Your task to perform on an android device: Go to location settings Image 0: 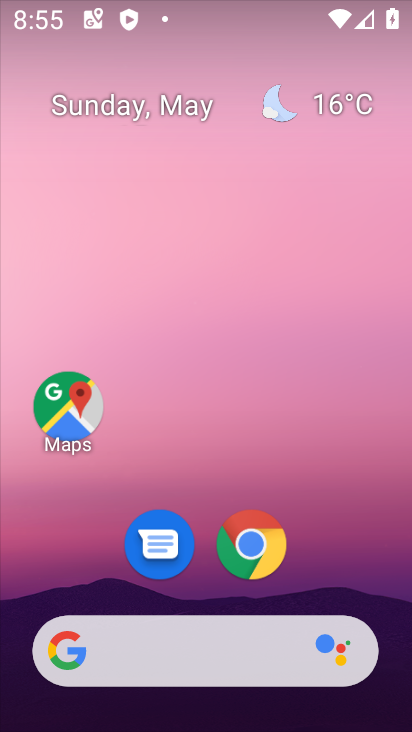
Step 0: drag from (297, 570) to (299, 70)
Your task to perform on an android device: Go to location settings Image 1: 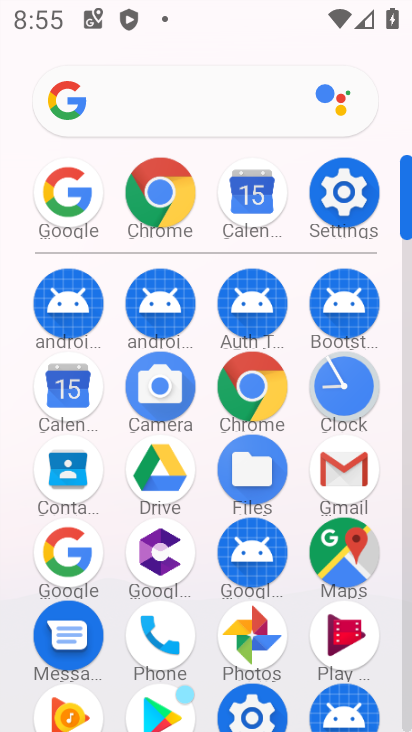
Step 1: click (339, 274)
Your task to perform on an android device: Go to location settings Image 2: 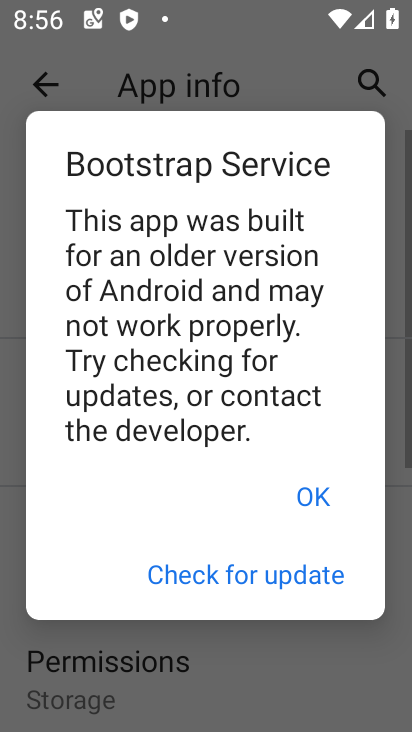
Step 2: click (303, 506)
Your task to perform on an android device: Go to location settings Image 3: 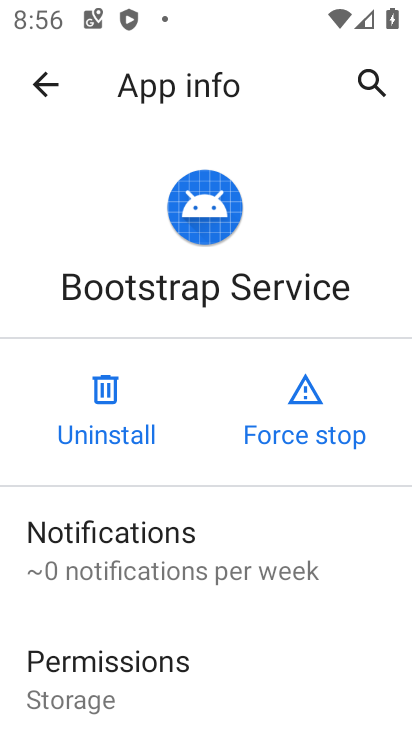
Step 3: click (38, 91)
Your task to perform on an android device: Go to location settings Image 4: 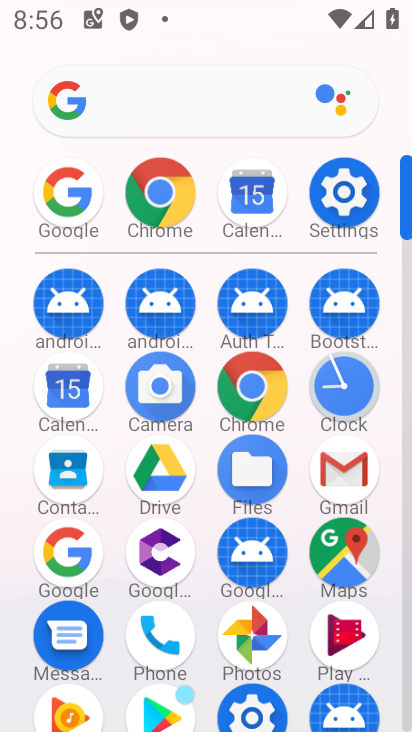
Step 4: click (333, 197)
Your task to perform on an android device: Go to location settings Image 5: 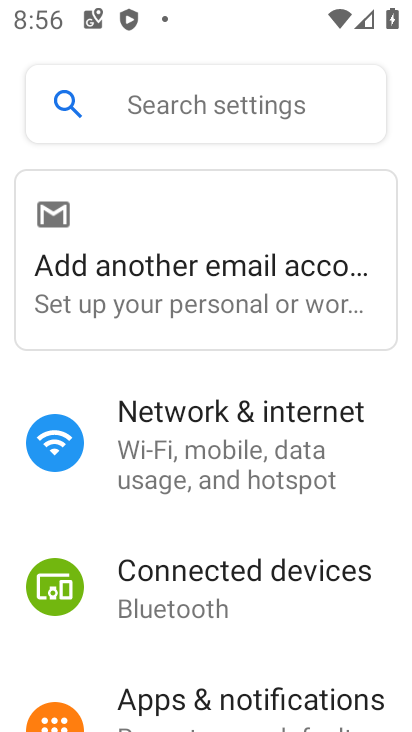
Step 5: drag from (196, 618) to (172, 263)
Your task to perform on an android device: Go to location settings Image 6: 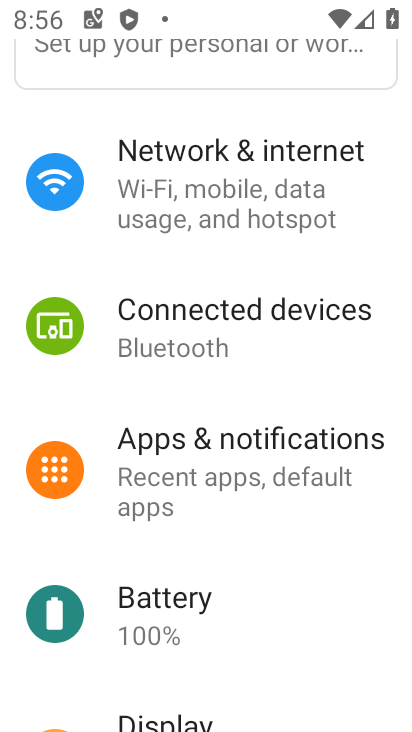
Step 6: drag from (181, 482) to (180, 227)
Your task to perform on an android device: Go to location settings Image 7: 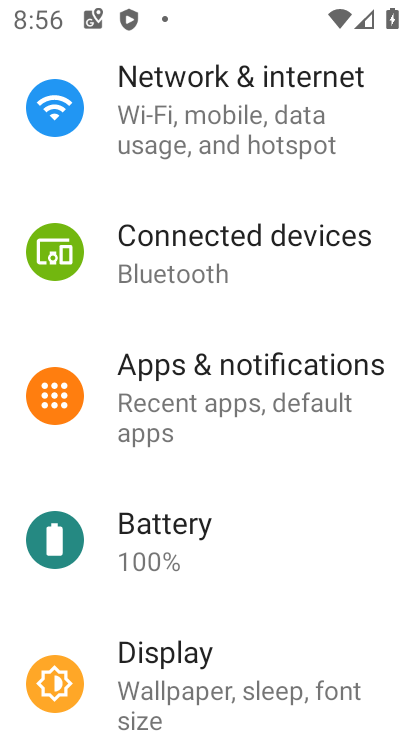
Step 7: drag from (185, 612) to (196, 291)
Your task to perform on an android device: Go to location settings Image 8: 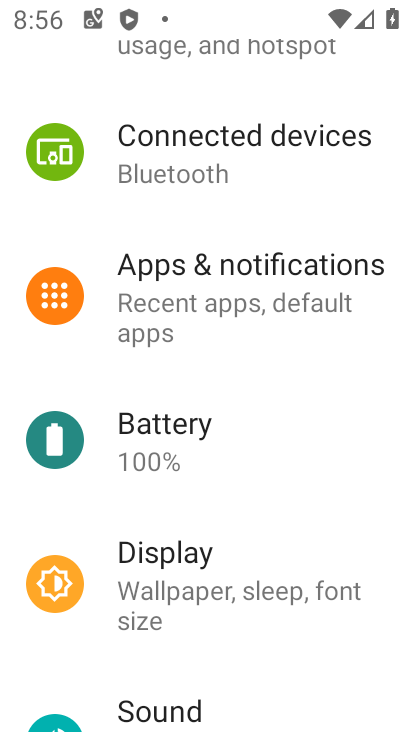
Step 8: drag from (178, 677) to (199, 365)
Your task to perform on an android device: Go to location settings Image 9: 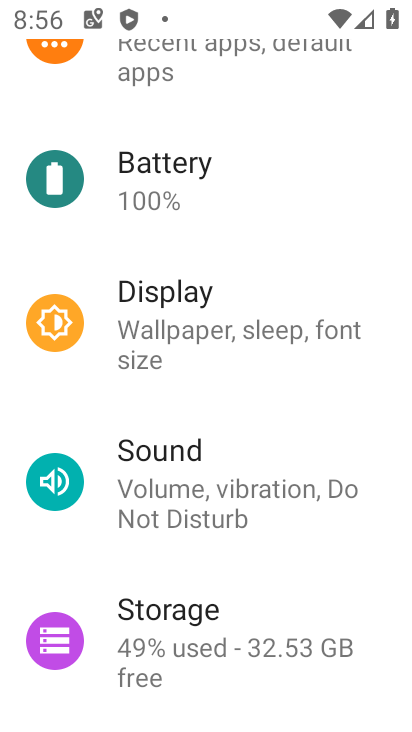
Step 9: drag from (190, 574) to (238, 350)
Your task to perform on an android device: Go to location settings Image 10: 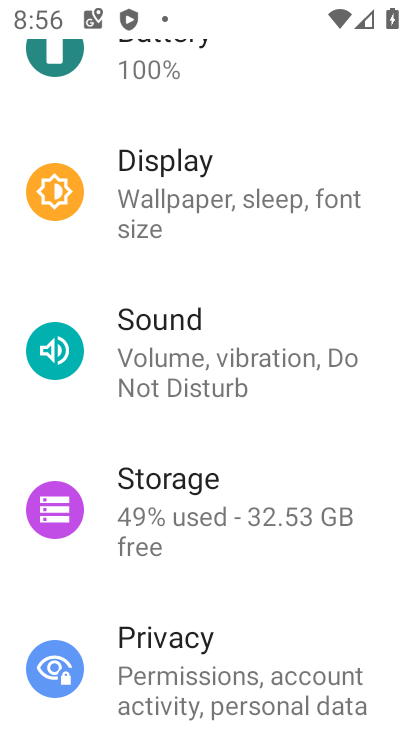
Step 10: drag from (153, 653) to (163, 428)
Your task to perform on an android device: Go to location settings Image 11: 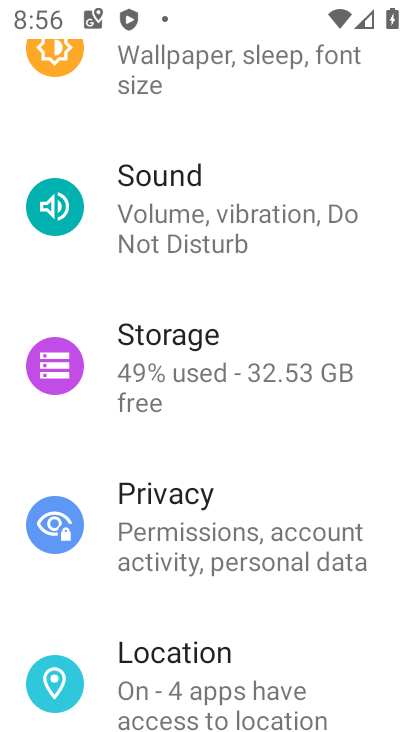
Step 11: click (156, 673)
Your task to perform on an android device: Go to location settings Image 12: 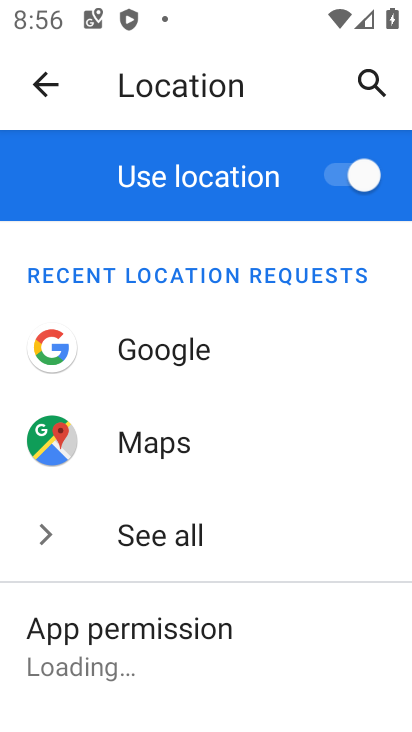
Step 12: task complete